Your task to perform on an android device: Open Google Chrome Image 0: 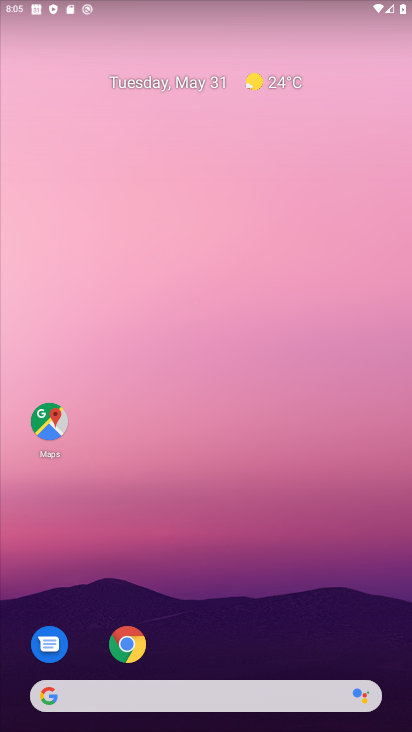
Step 0: click (130, 648)
Your task to perform on an android device: Open Google Chrome Image 1: 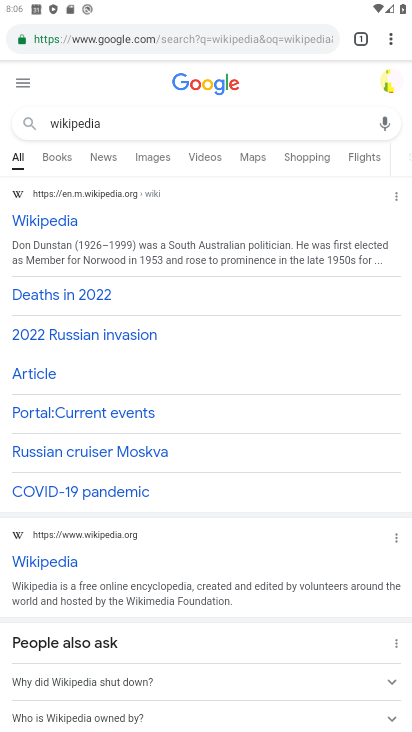
Step 1: task complete